Your task to perform on an android device: turn notification dots on Image 0: 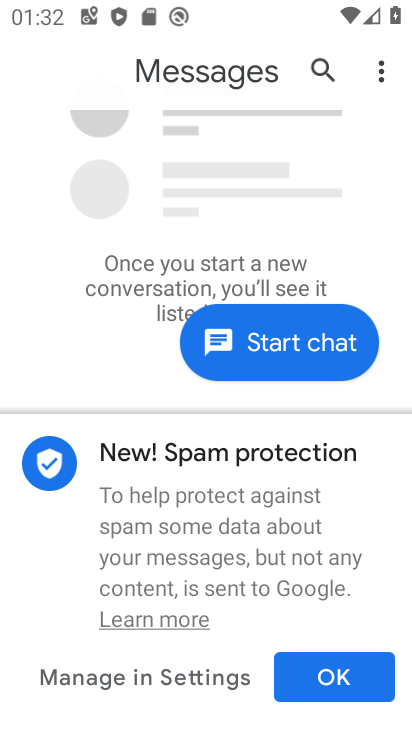
Step 0: press back button
Your task to perform on an android device: turn notification dots on Image 1: 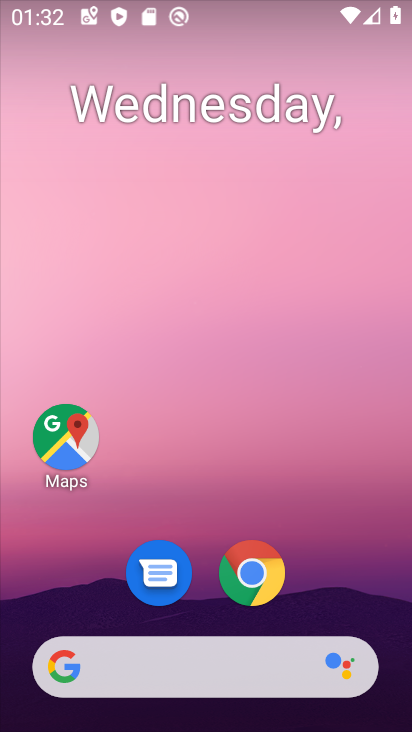
Step 1: drag from (293, 525) to (217, 51)
Your task to perform on an android device: turn notification dots on Image 2: 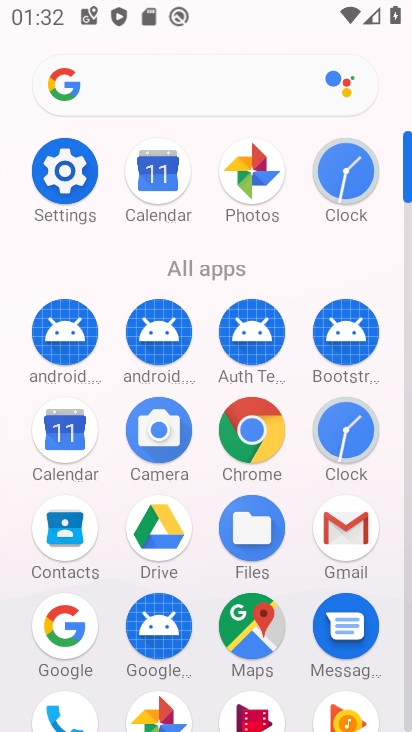
Step 2: click (62, 170)
Your task to perform on an android device: turn notification dots on Image 3: 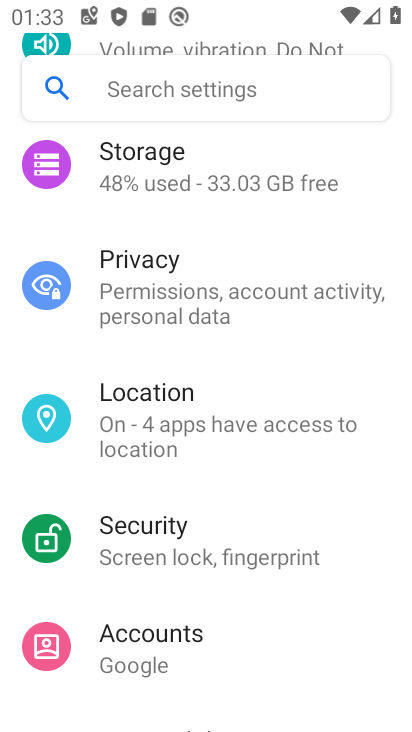
Step 3: drag from (208, 522) to (239, 419)
Your task to perform on an android device: turn notification dots on Image 4: 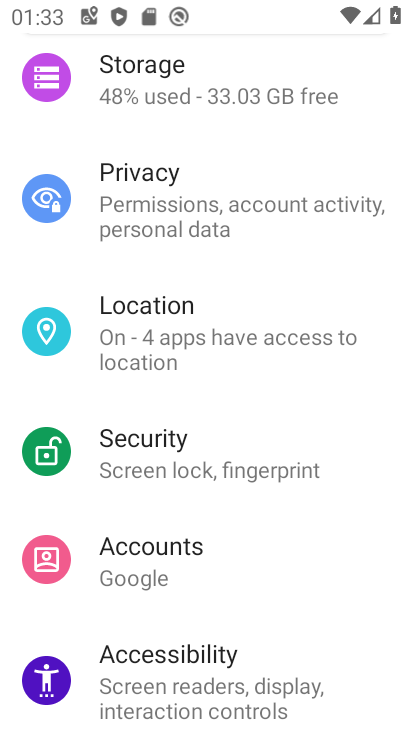
Step 4: drag from (239, 554) to (249, 411)
Your task to perform on an android device: turn notification dots on Image 5: 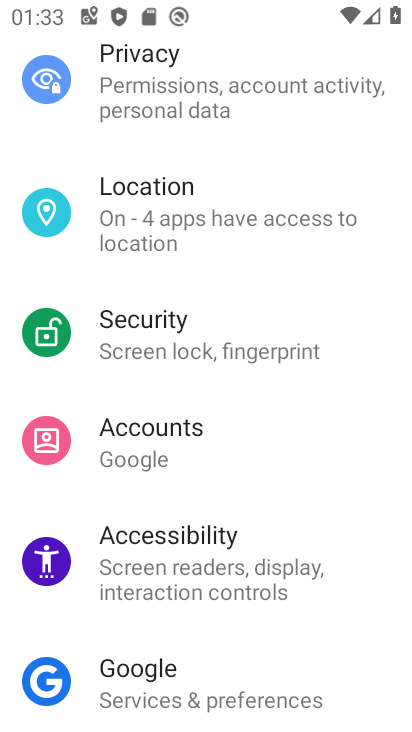
Step 5: drag from (261, 292) to (295, 498)
Your task to perform on an android device: turn notification dots on Image 6: 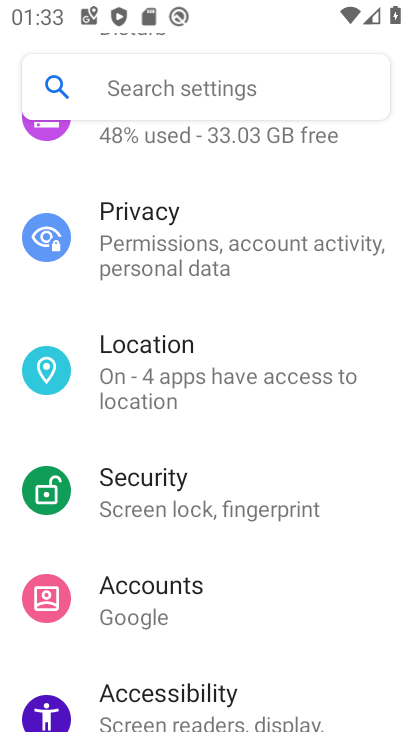
Step 6: drag from (302, 260) to (316, 511)
Your task to perform on an android device: turn notification dots on Image 7: 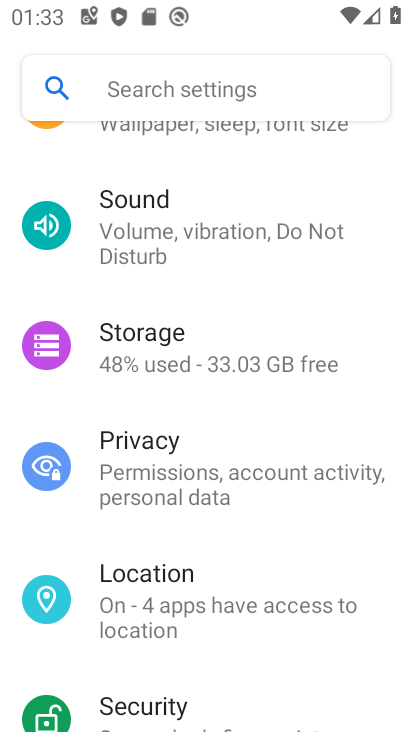
Step 7: drag from (263, 214) to (279, 400)
Your task to perform on an android device: turn notification dots on Image 8: 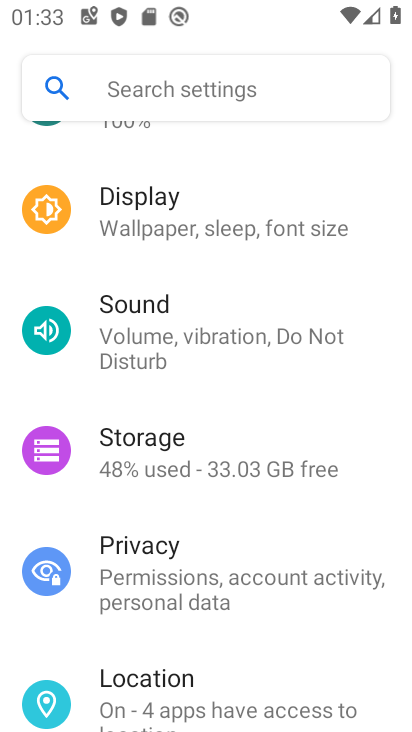
Step 8: drag from (242, 185) to (279, 429)
Your task to perform on an android device: turn notification dots on Image 9: 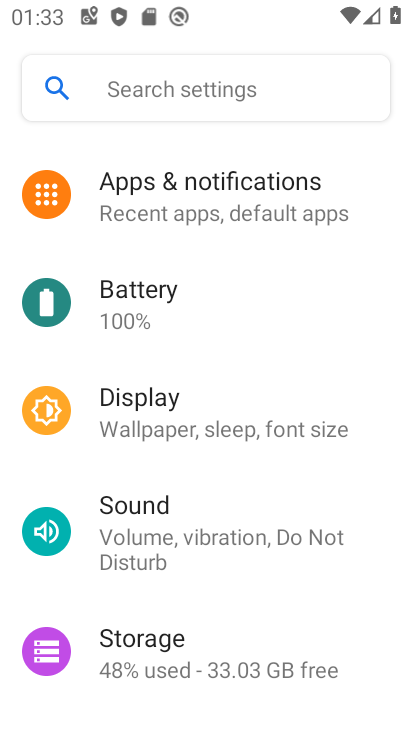
Step 9: click (232, 193)
Your task to perform on an android device: turn notification dots on Image 10: 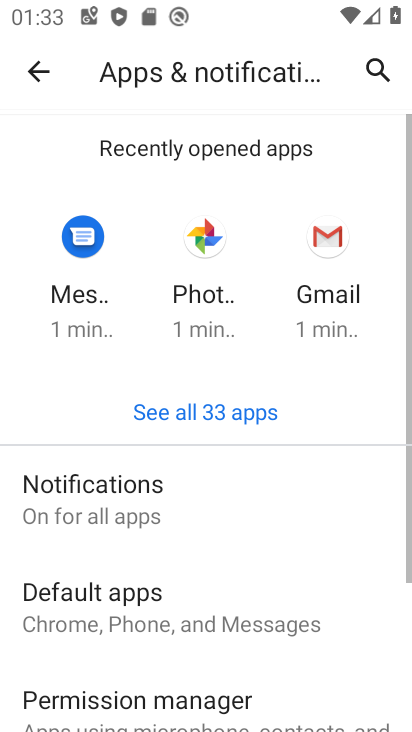
Step 10: click (96, 477)
Your task to perform on an android device: turn notification dots on Image 11: 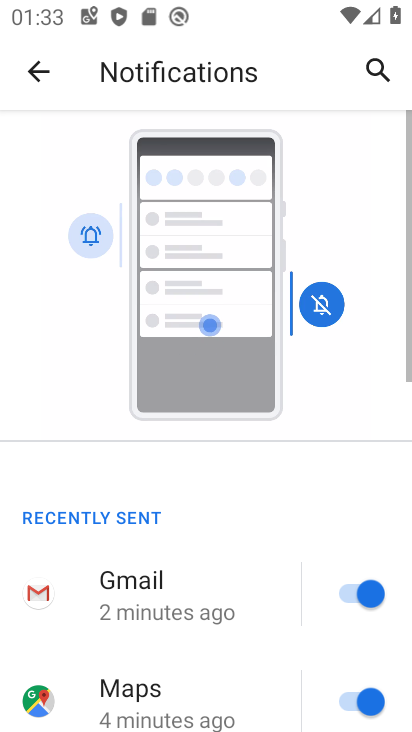
Step 11: drag from (227, 633) to (286, 394)
Your task to perform on an android device: turn notification dots on Image 12: 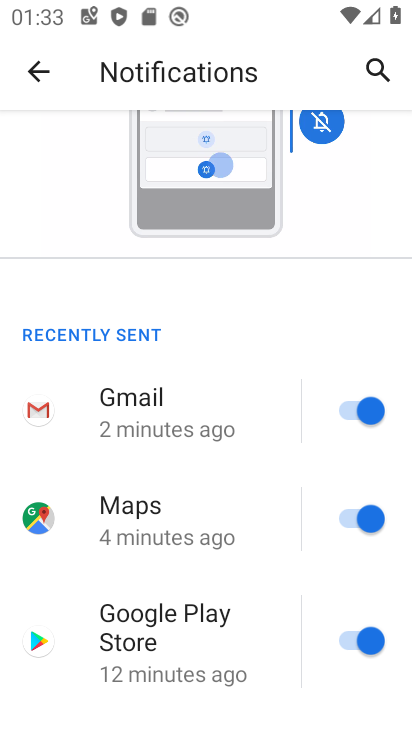
Step 12: drag from (190, 579) to (273, 346)
Your task to perform on an android device: turn notification dots on Image 13: 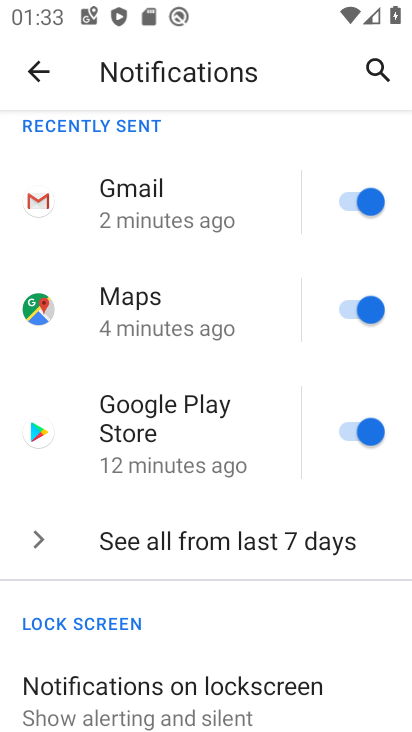
Step 13: drag from (180, 613) to (251, 382)
Your task to perform on an android device: turn notification dots on Image 14: 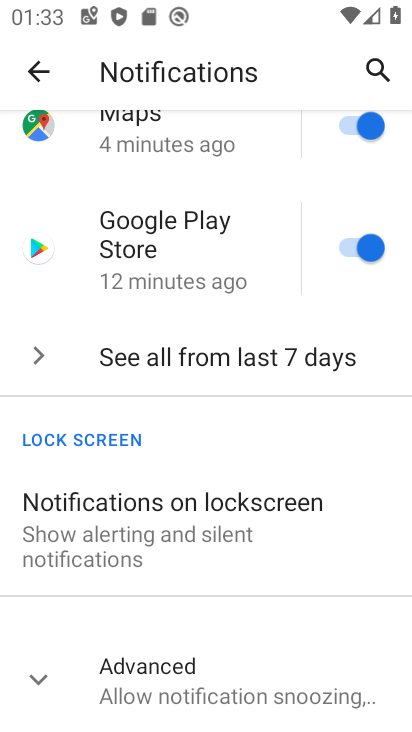
Step 14: click (167, 675)
Your task to perform on an android device: turn notification dots on Image 15: 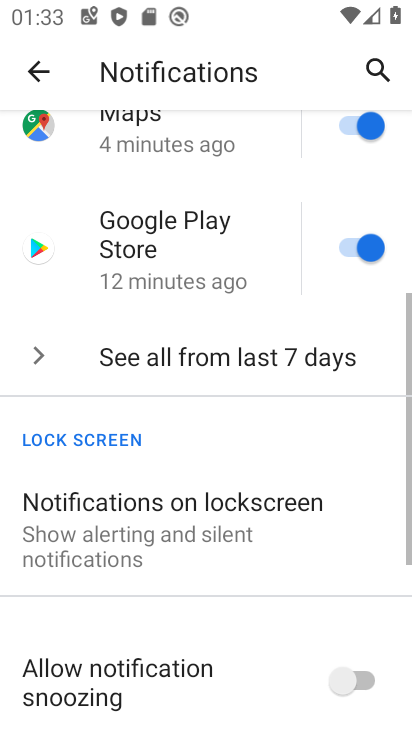
Step 15: task complete